Your task to perform on an android device: Open CNN.com Image 0: 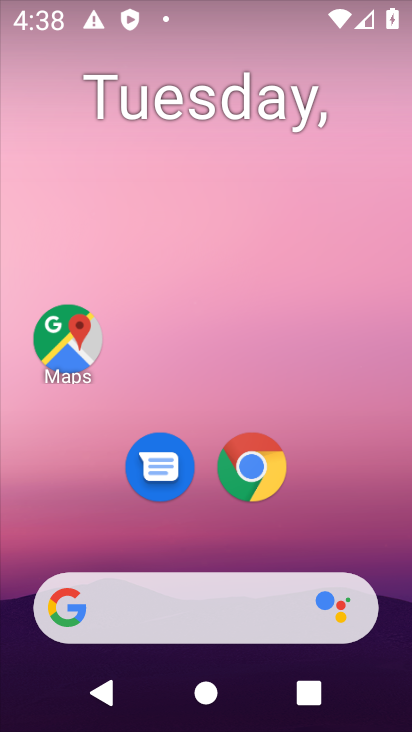
Step 0: drag from (223, 561) to (250, 106)
Your task to perform on an android device: Open CNN.com Image 1: 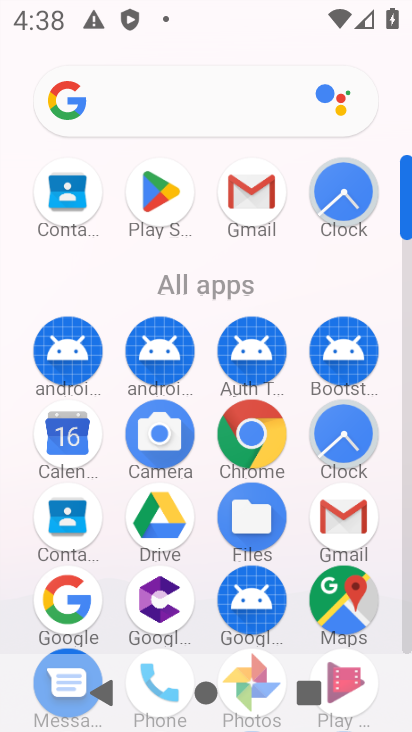
Step 1: click (274, 444)
Your task to perform on an android device: Open CNN.com Image 2: 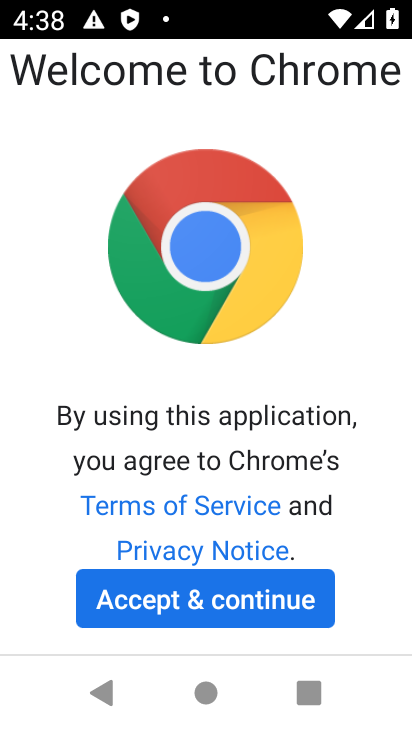
Step 2: click (181, 619)
Your task to perform on an android device: Open CNN.com Image 3: 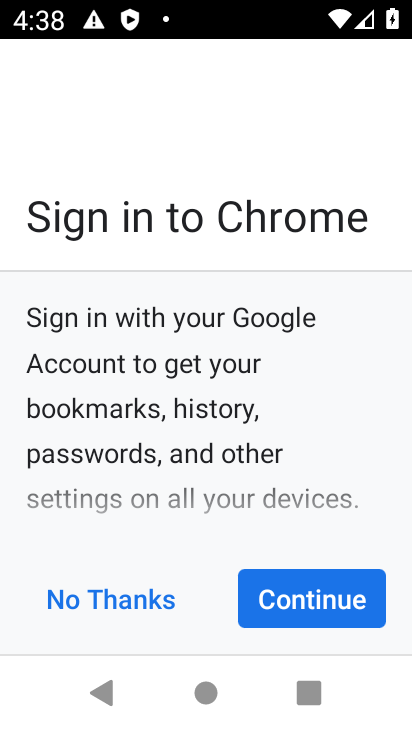
Step 3: click (103, 611)
Your task to perform on an android device: Open CNN.com Image 4: 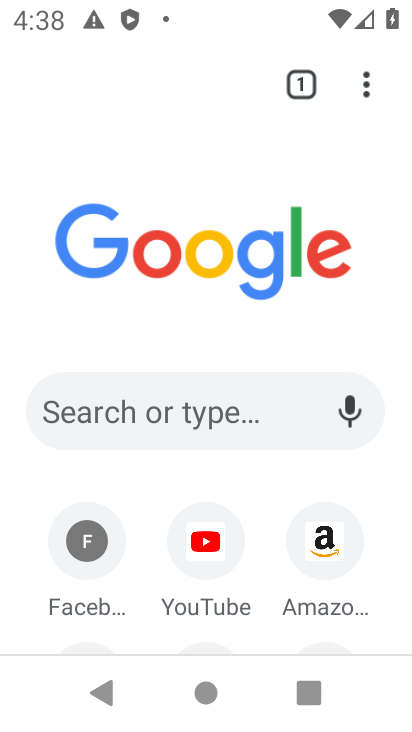
Step 4: click (208, 422)
Your task to perform on an android device: Open CNN.com Image 5: 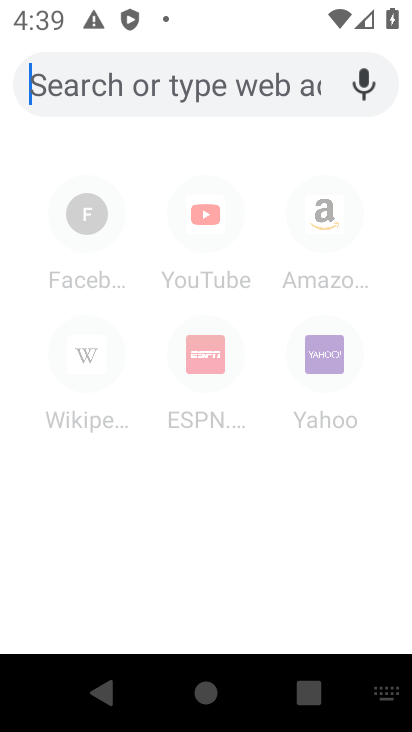
Step 5: type "cnn.com"
Your task to perform on an android device: Open CNN.com Image 6: 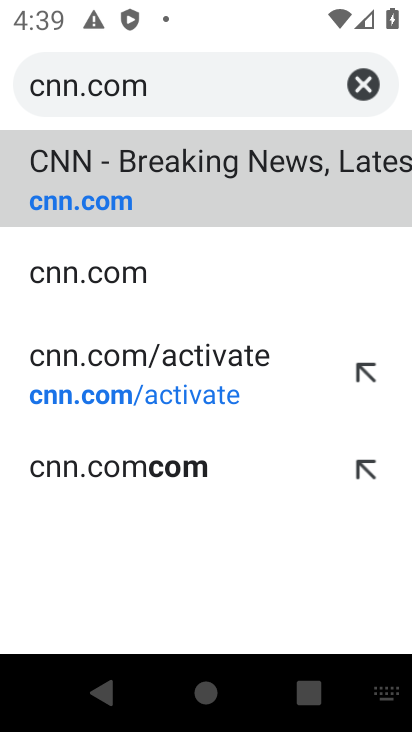
Step 6: click (93, 172)
Your task to perform on an android device: Open CNN.com Image 7: 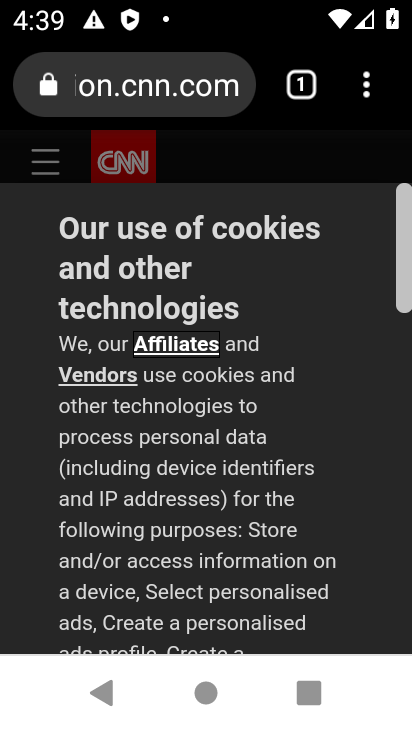
Step 7: task complete